Your task to perform on an android device: toggle notifications settings in the gmail app Image 0: 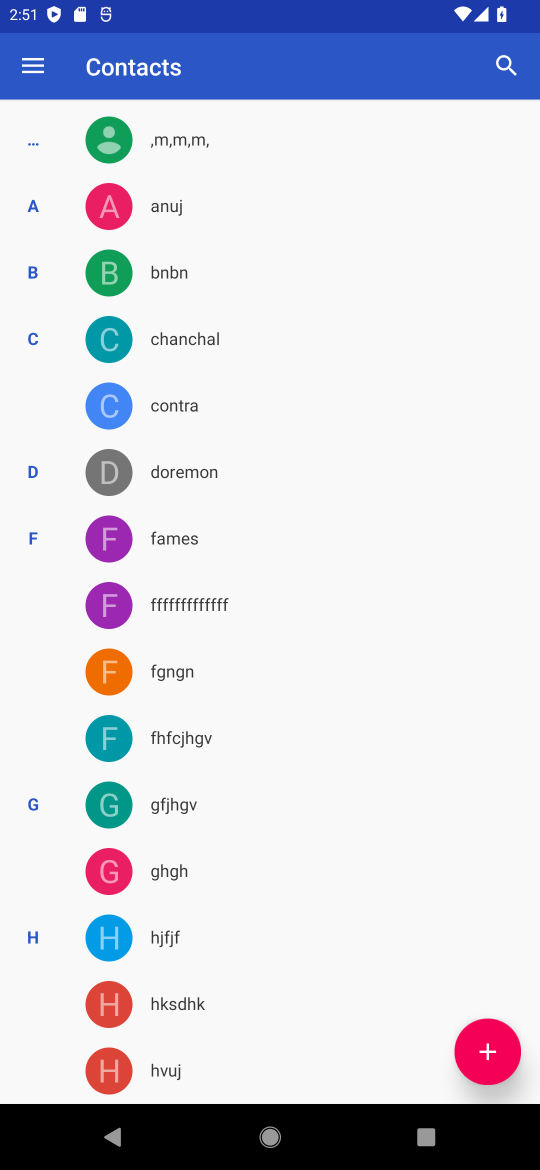
Step 0: press home button
Your task to perform on an android device: toggle notifications settings in the gmail app Image 1: 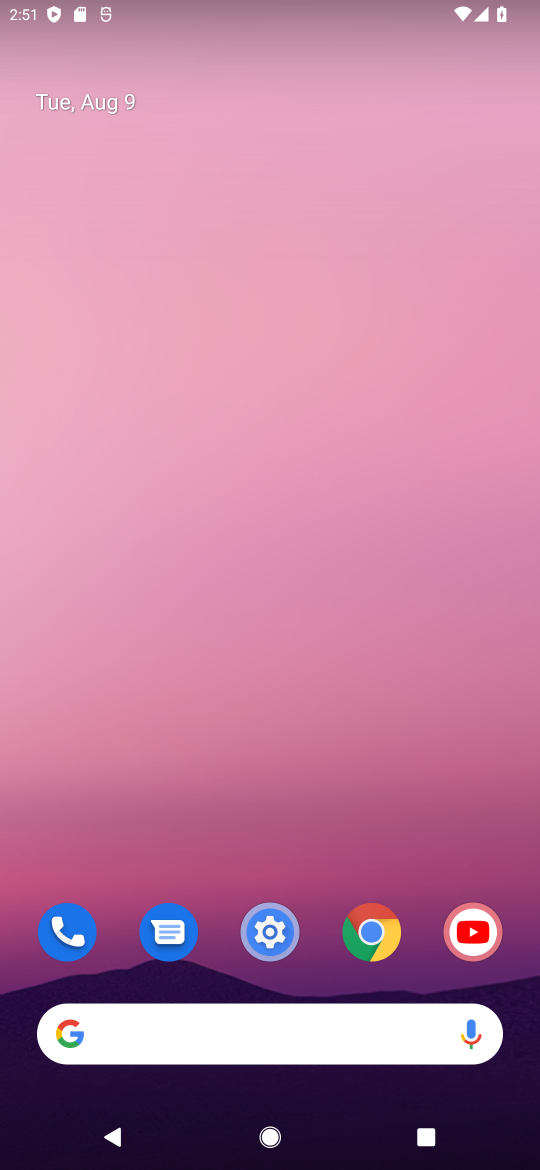
Step 1: drag from (80, 1111) to (215, 458)
Your task to perform on an android device: toggle notifications settings in the gmail app Image 2: 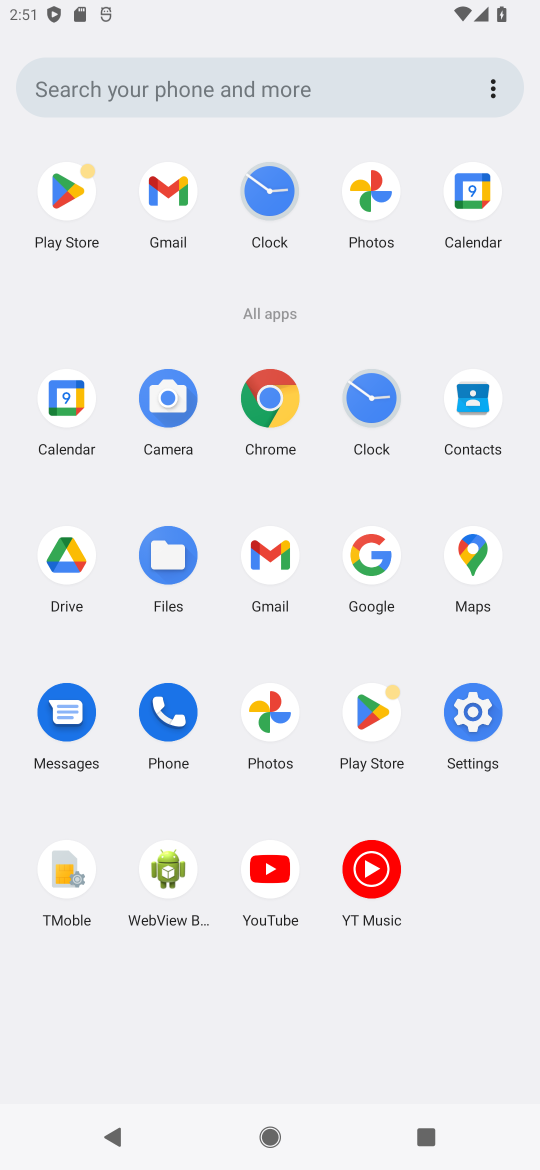
Step 2: click (265, 552)
Your task to perform on an android device: toggle notifications settings in the gmail app Image 3: 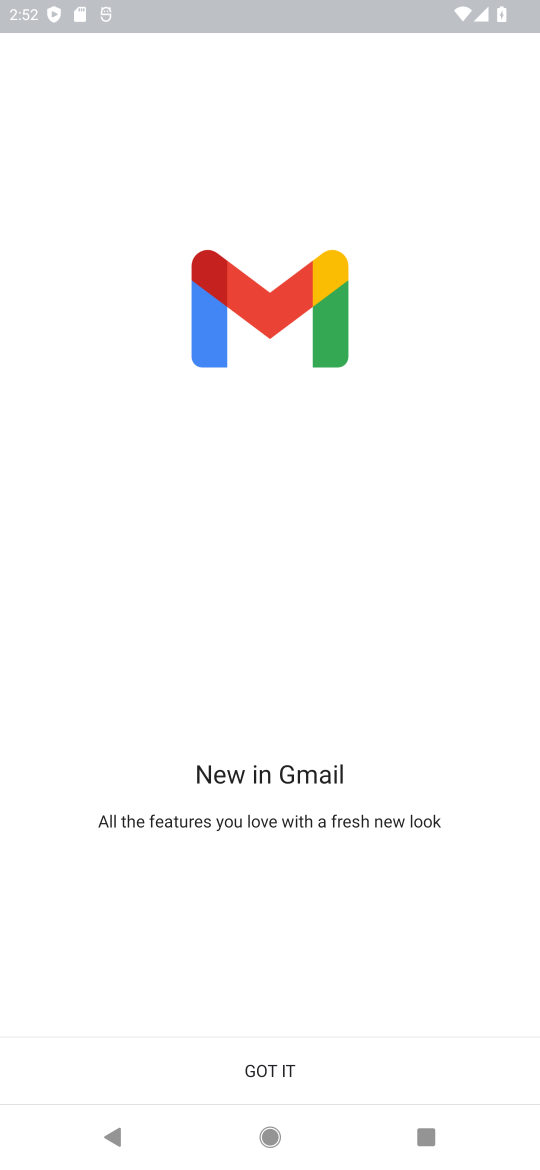
Step 3: click (279, 1067)
Your task to perform on an android device: toggle notifications settings in the gmail app Image 4: 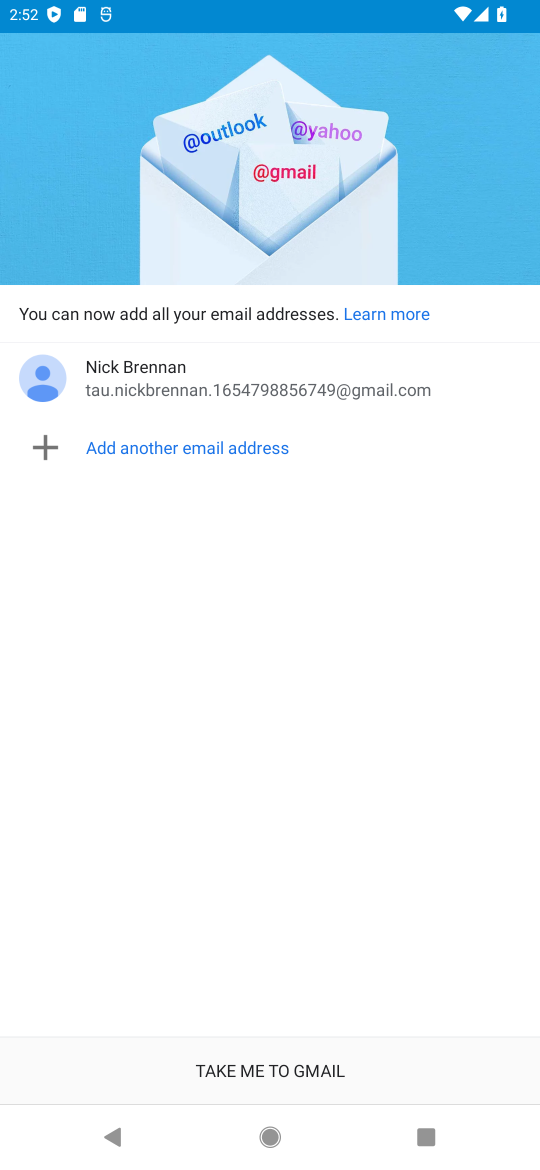
Step 4: click (279, 1067)
Your task to perform on an android device: toggle notifications settings in the gmail app Image 5: 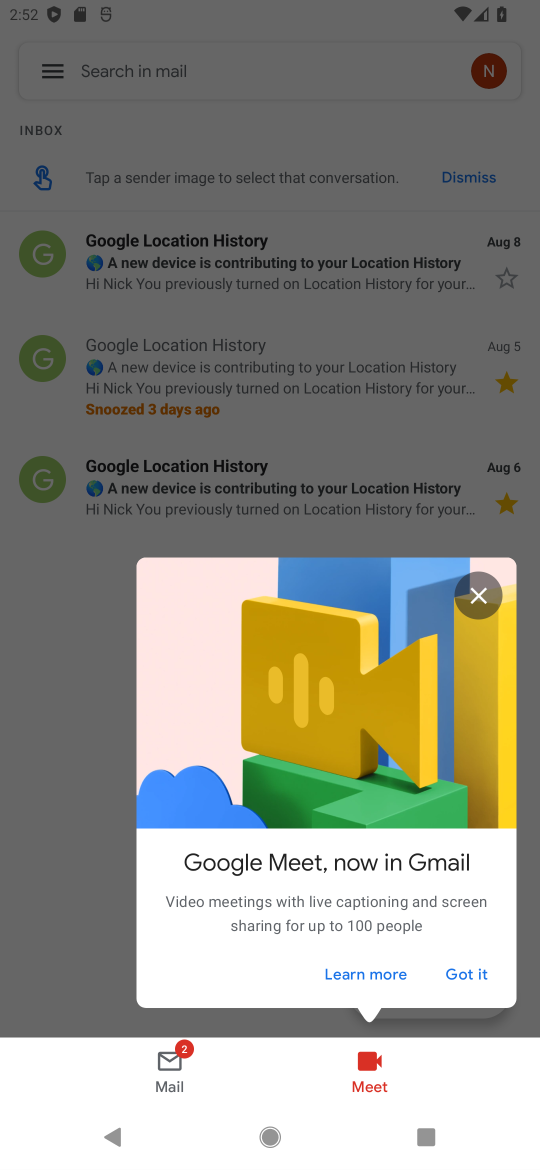
Step 5: click (472, 592)
Your task to perform on an android device: toggle notifications settings in the gmail app Image 6: 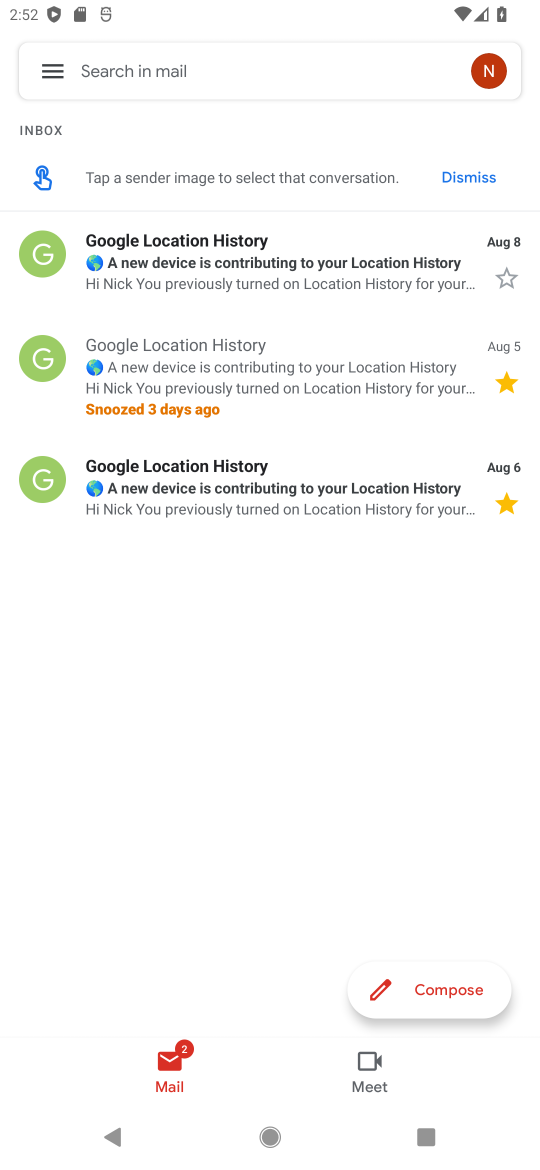
Step 6: click (54, 66)
Your task to perform on an android device: toggle notifications settings in the gmail app Image 7: 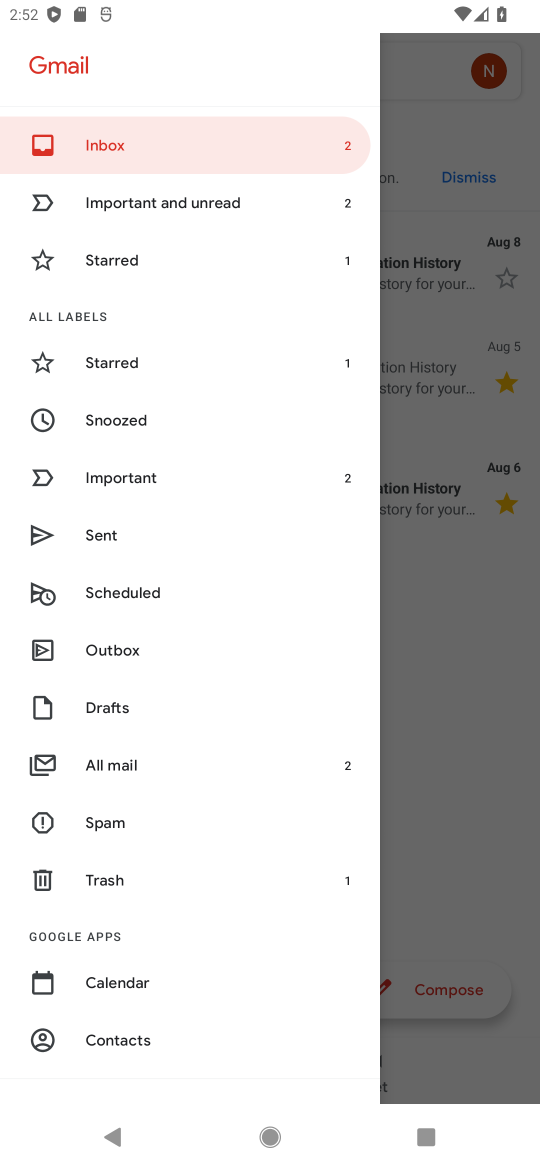
Step 7: drag from (212, 1018) to (212, 668)
Your task to perform on an android device: toggle notifications settings in the gmail app Image 8: 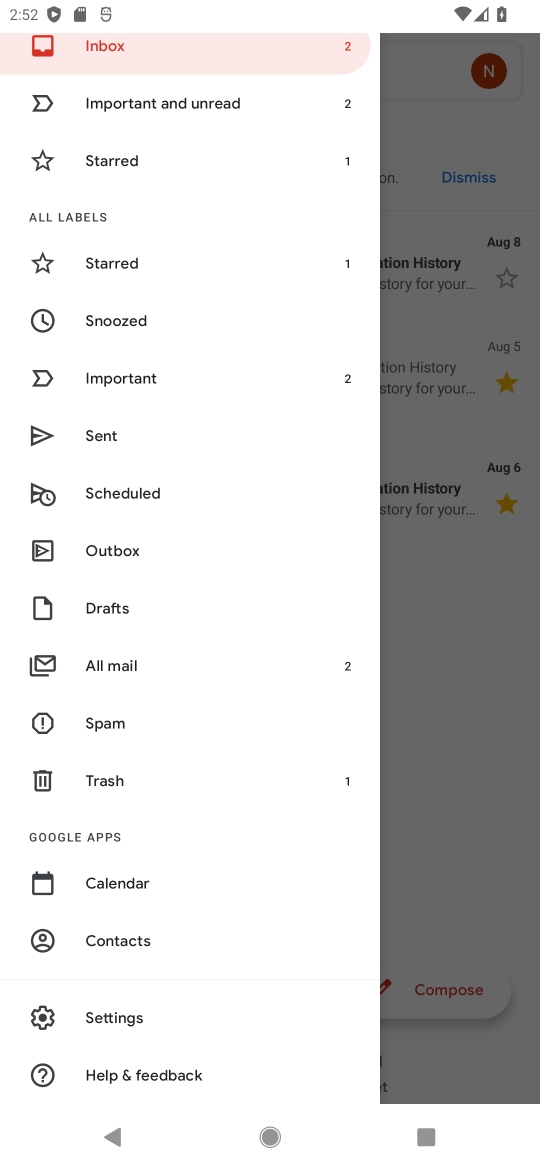
Step 8: click (131, 1024)
Your task to perform on an android device: toggle notifications settings in the gmail app Image 9: 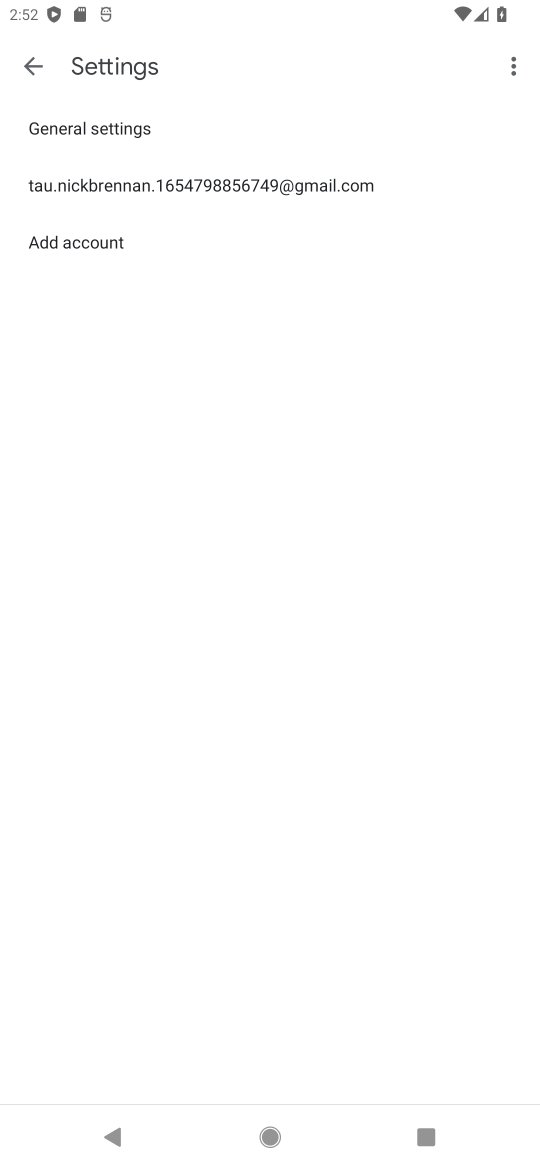
Step 9: click (100, 124)
Your task to perform on an android device: toggle notifications settings in the gmail app Image 10: 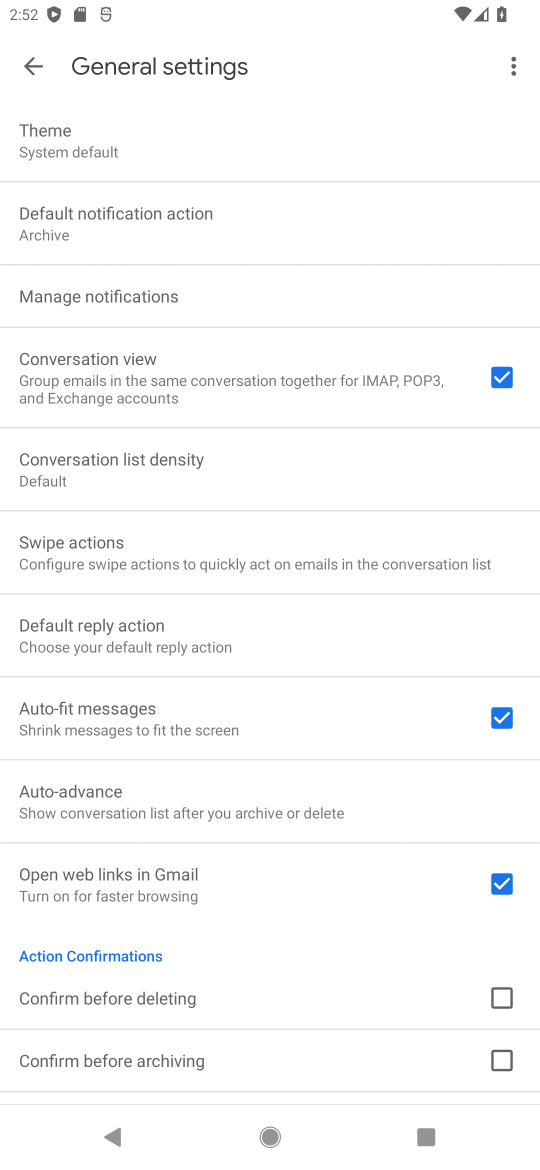
Step 10: click (53, 285)
Your task to perform on an android device: toggle notifications settings in the gmail app Image 11: 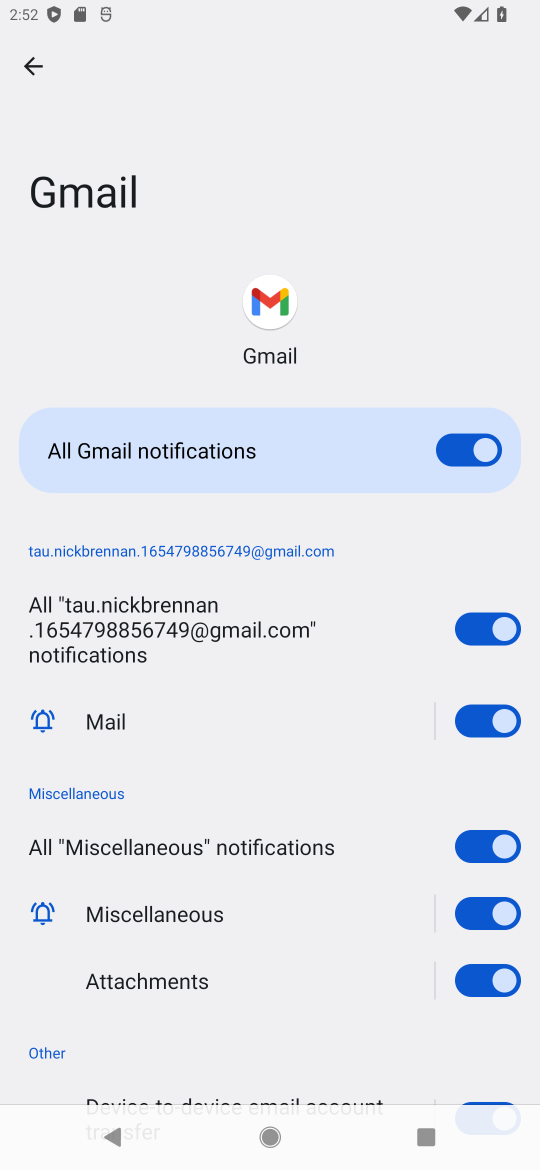
Step 11: click (467, 456)
Your task to perform on an android device: toggle notifications settings in the gmail app Image 12: 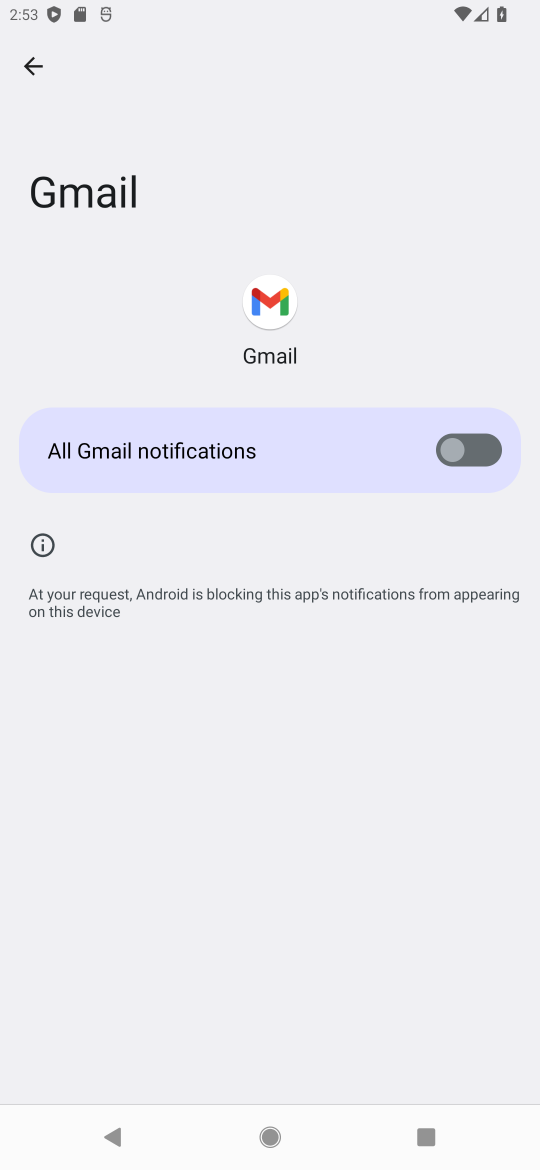
Step 12: task complete